Your task to perform on an android device: add a contact Image 0: 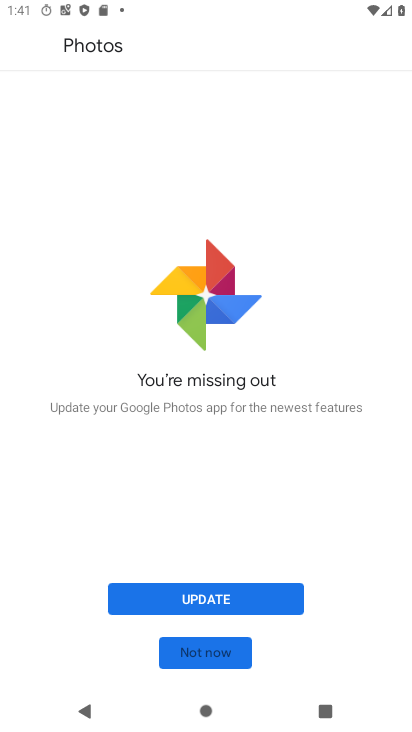
Step 0: click (216, 653)
Your task to perform on an android device: add a contact Image 1: 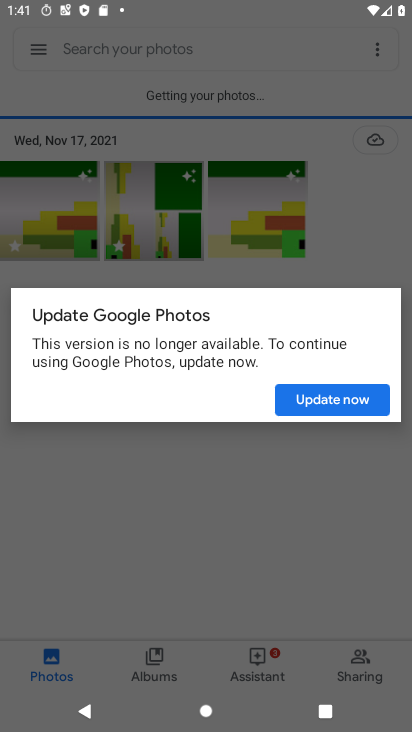
Step 1: click (317, 394)
Your task to perform on an android device: add a contact Image 2: 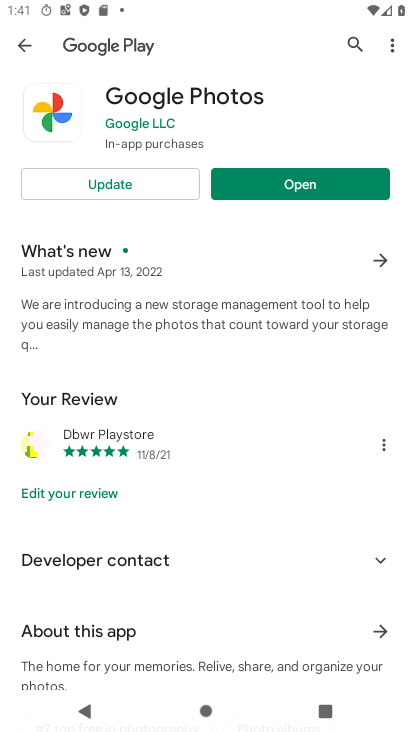
Step 2: press home button
Your task to perform on an android device: add a contact Image 3: 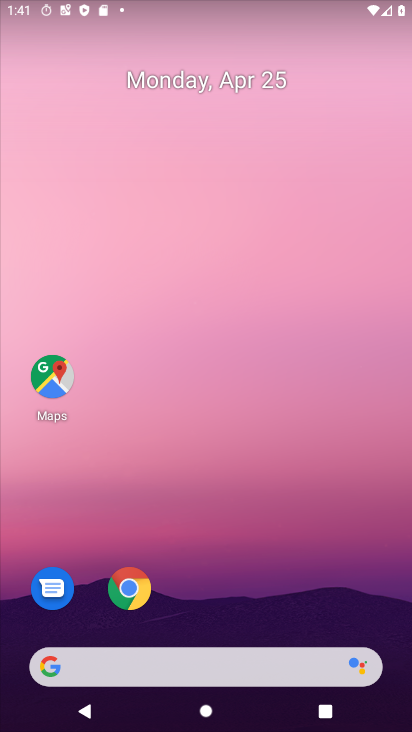
Step 3: drag from (181, 616) to (253, 229)
Your task to perform on an android device: add a contact Image 4: 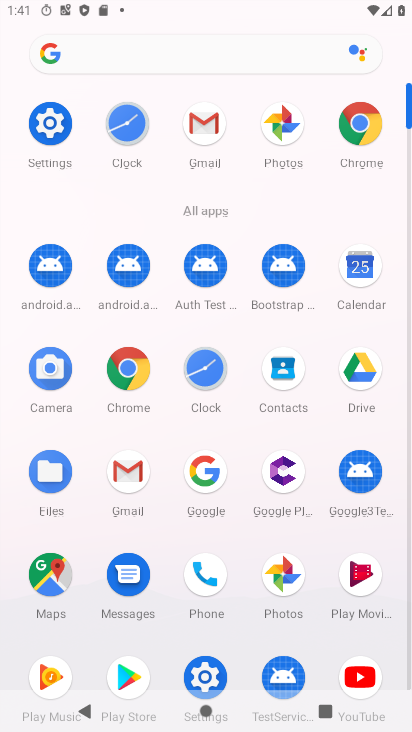
Step 4: click (284, 379)
Your task to perform on an android device: add a contact Image 5: 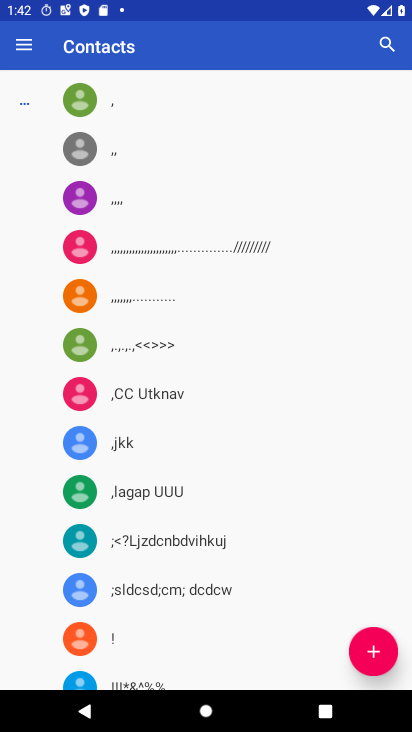
Step 5: click (386, 645)
Your task to perform on an android device: add a contact Image 6: 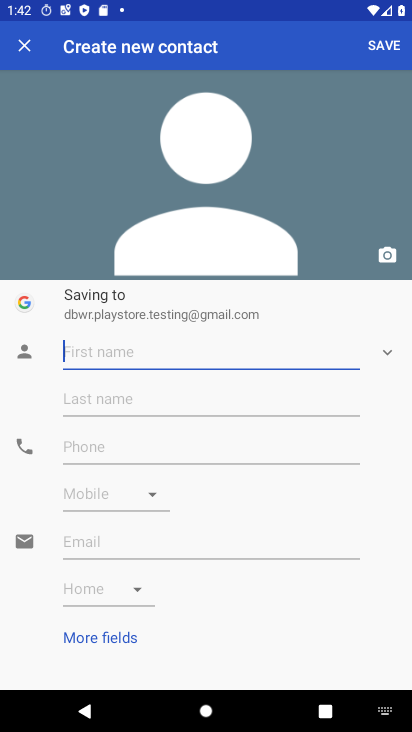
Step 6: type "dhghgcf"
Your task to perform on an android device: add a contact Image 7: 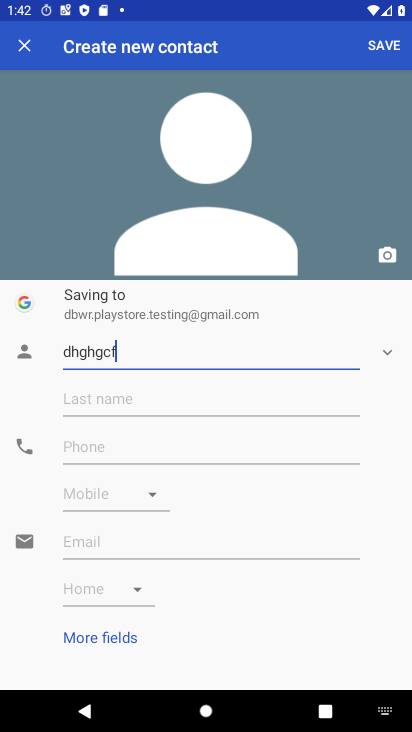
Step 7: type ""
Your task to perform on an android device: add a contact Image 8: 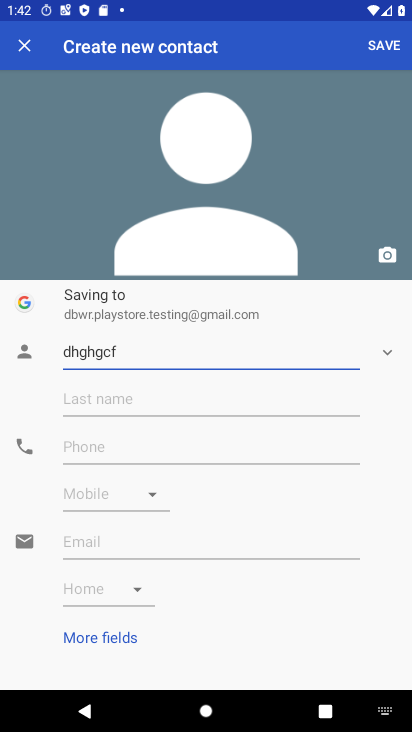
Step 8: click (372, 48)
Your task to perform on an android device: add a contact Image 9: 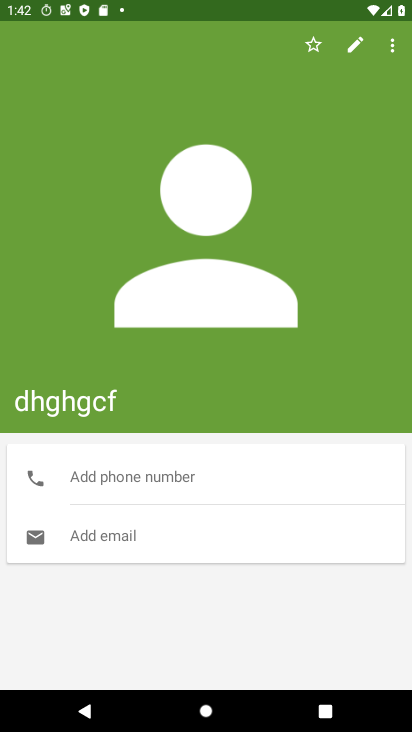
Step 9: task complete